Your task to perform on an android device: Open the stopwatch Image 0: 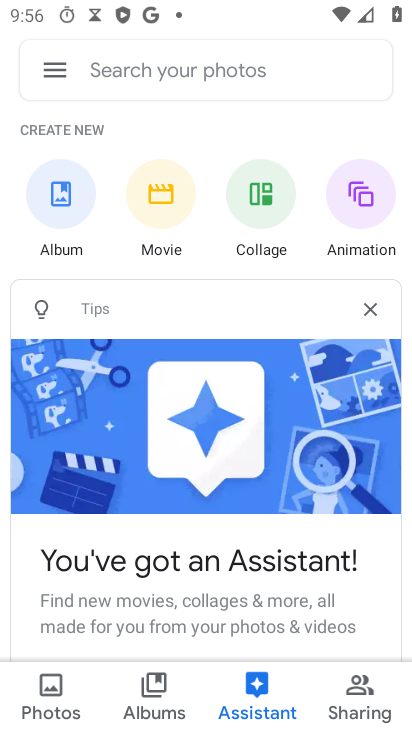
Step 0: press home button
Your task to perform on an android device: Open the stopwatch Image 1: 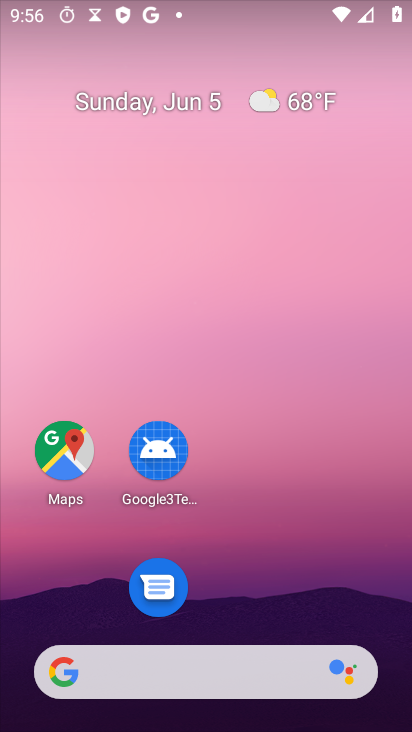
Step 1: drag from (255, 504) to (208, 125)
Your task to perform on an android device: Open the stopwatch Image 2: 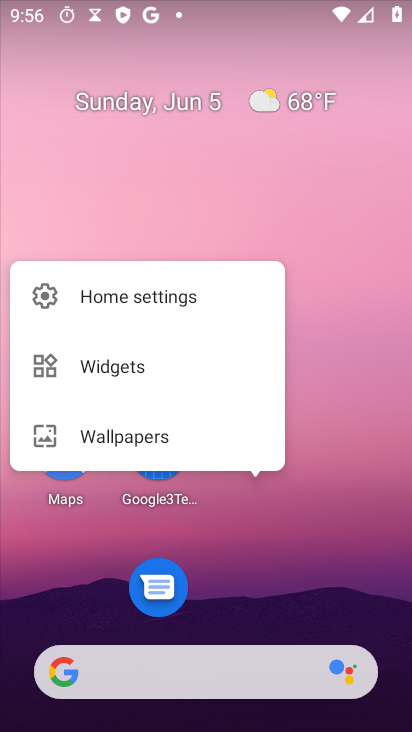
Step 2: click (239, 236)
Your task to perform on an android device: Open the stopwatch Image 3: 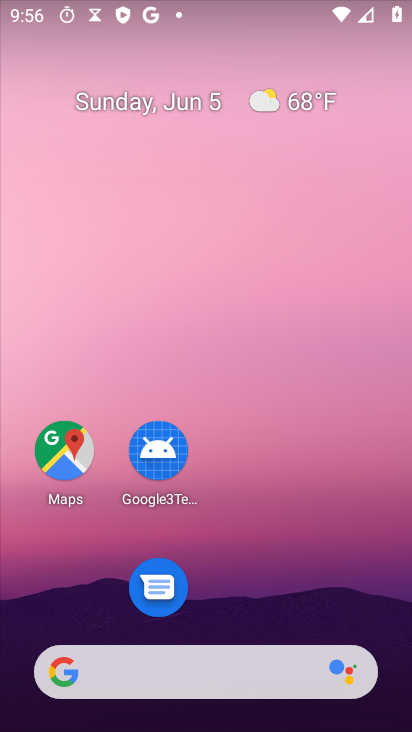
Step 3: drag from (292, 545) to (235, 181)
Your task to perform on an android device: Open the stopwatch Image 4: 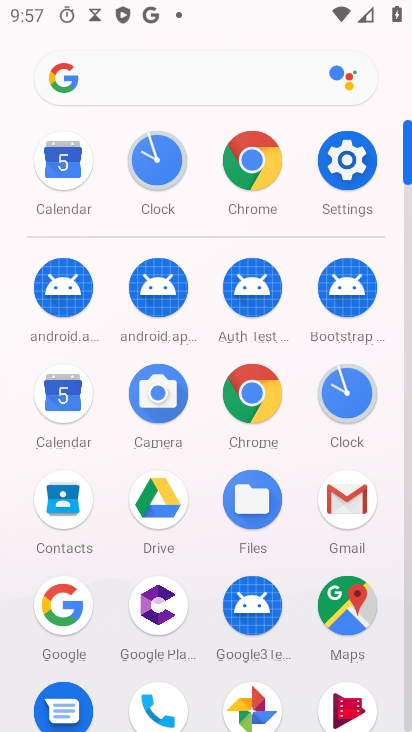
Step 4: click (350, 400)
Your task to perform on an android device: Open the stopwatch Image 5: 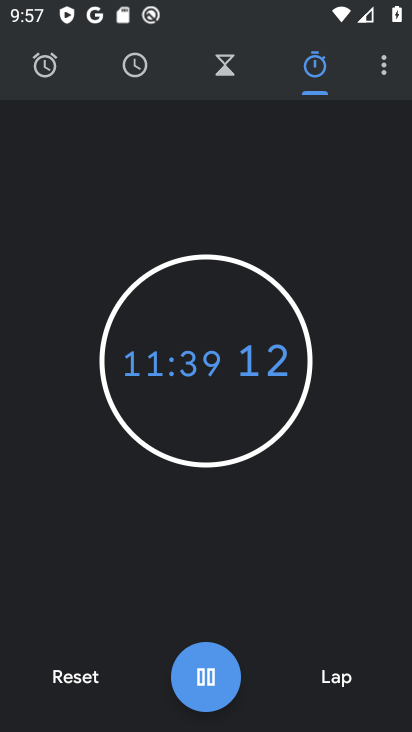
Step 5: task complete